Your task to perform on an android device: turn notification dots off Image 0: 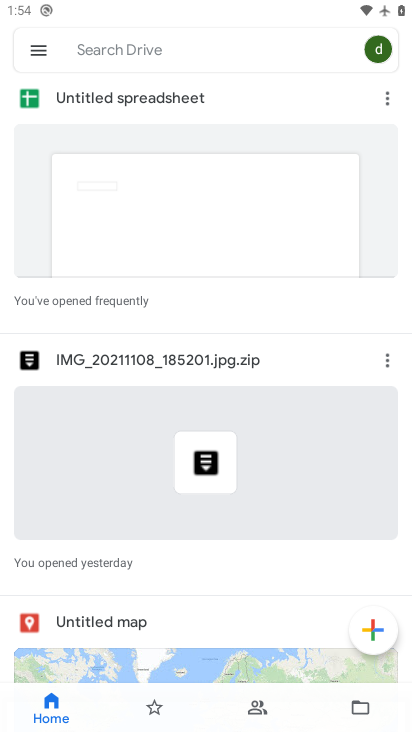
Step 0: press home button
Your task to perform on an android device: turn notification dots off Image 1: 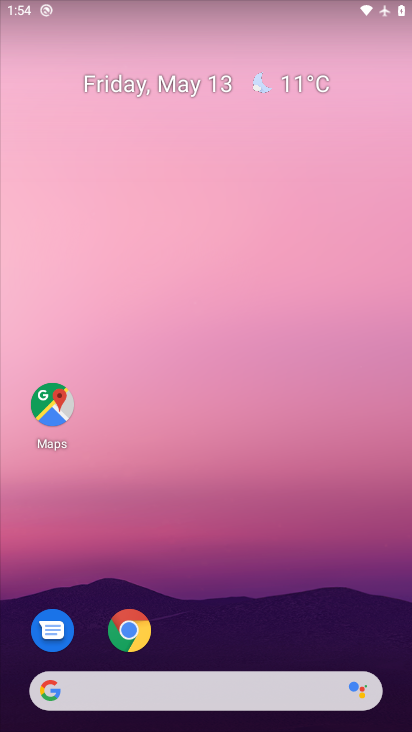
Step 1: drag from (226, 610) to (215, 134)
Your task to perform on an android device: turn notification dots off Image 2: 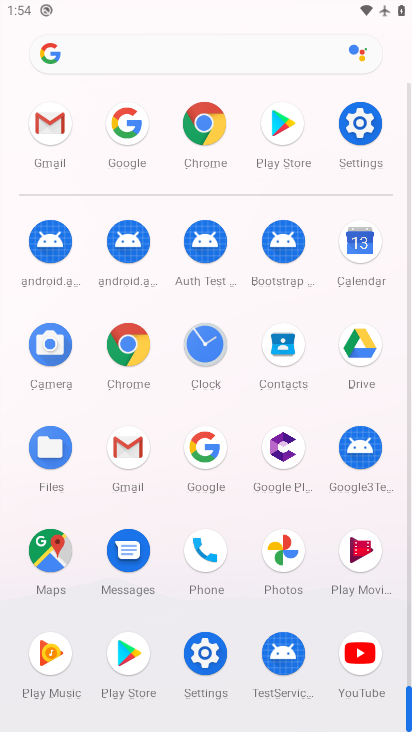
Step 2: click (352, 146)
Your task to perform on an android device: turn notification dots off Image 3: 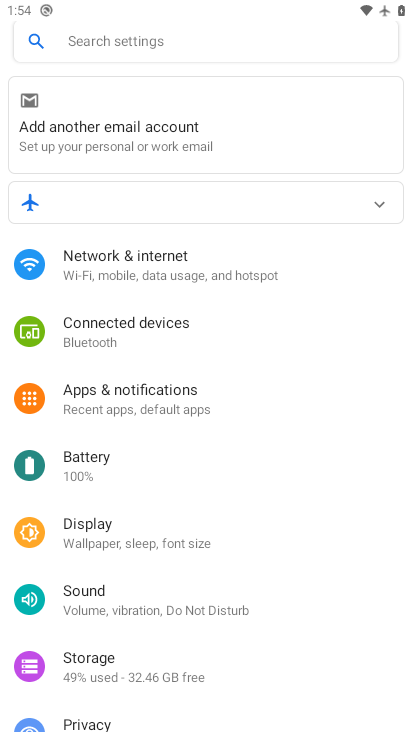
Step 3: click (143, 415)
Your task to perform on an android device: turn notification dots off Image 4: 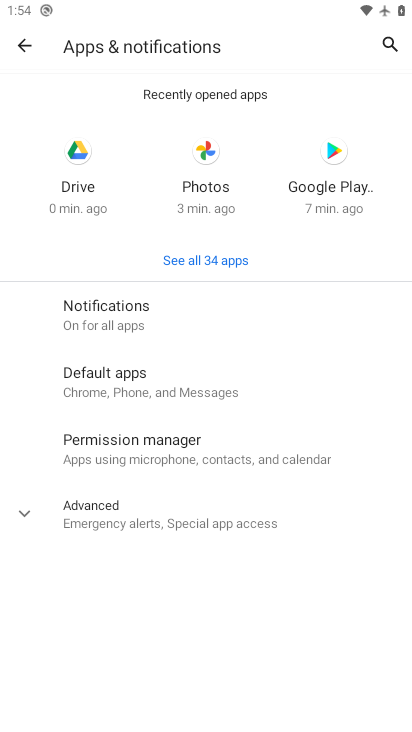
Step 4: click (157, 506)
Your task to perform on an android device: turn notification dots off Image 5: 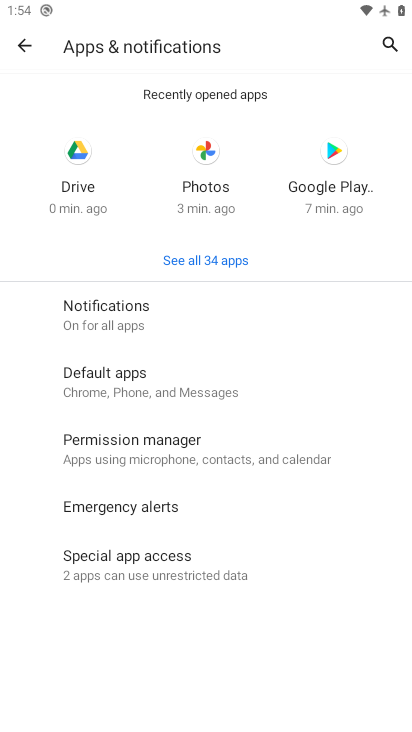
Step 5: drag from (163, 522) to (190, 312)
Your task to perform on an android device: turn notification dots off Image 6: 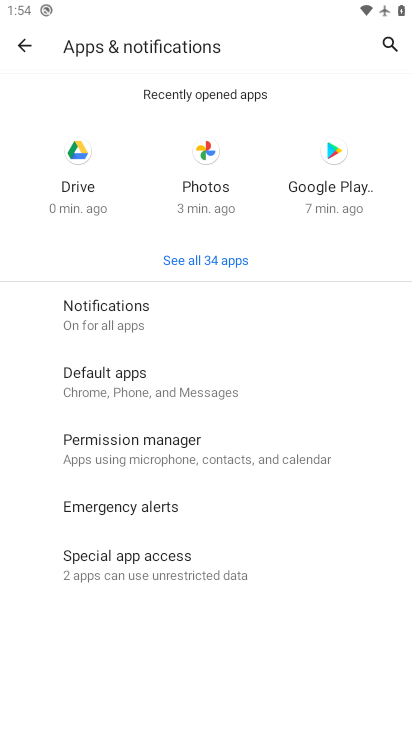
Step 6: click (148, 329)
Your task to perform on an android device: turn notification dots off Image 7: 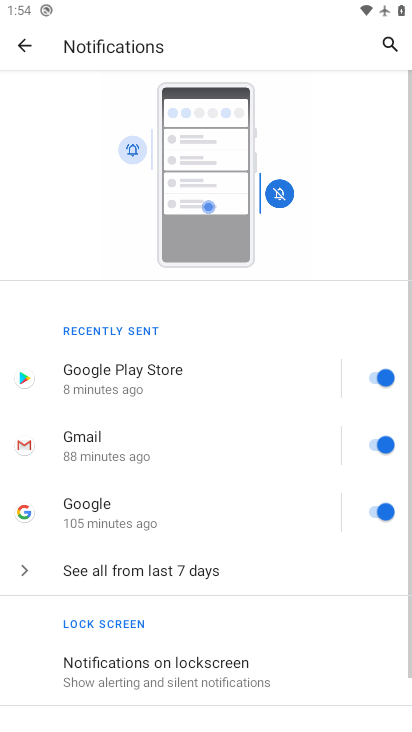
Step 7: drag from (143, 607) to (202, 250)
Your task to perform on an android device: turn notification dots off Image 8: 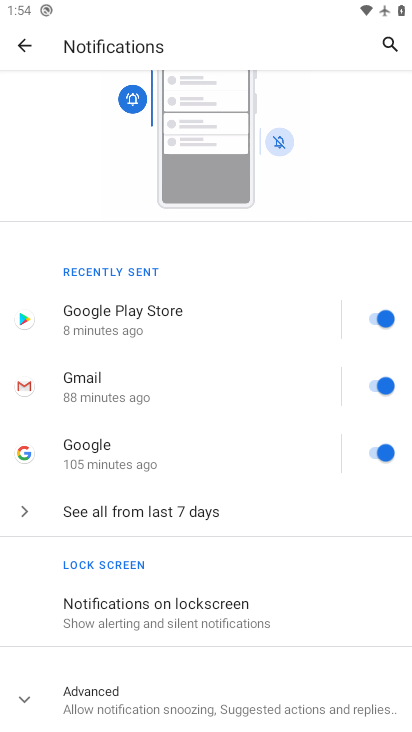
Step 8: drag from (183, 542) to (176, 263)
Your task to perform on an android device: turn notification dots off Image 9: 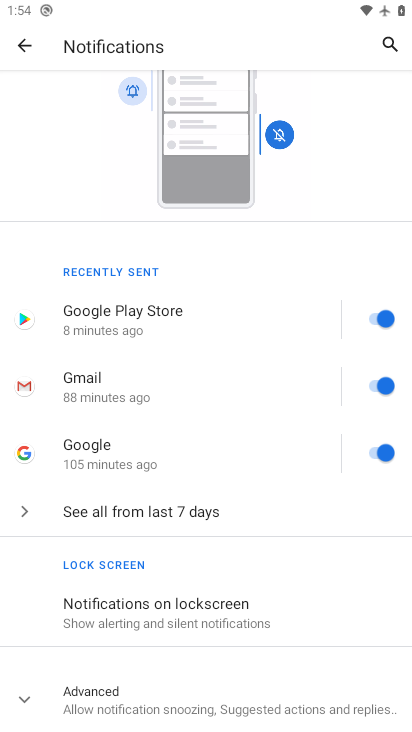
Step 9: drag from (227, 676) to (231, 444)
Your task to perform on an android device: turn notification dots off Image 10: 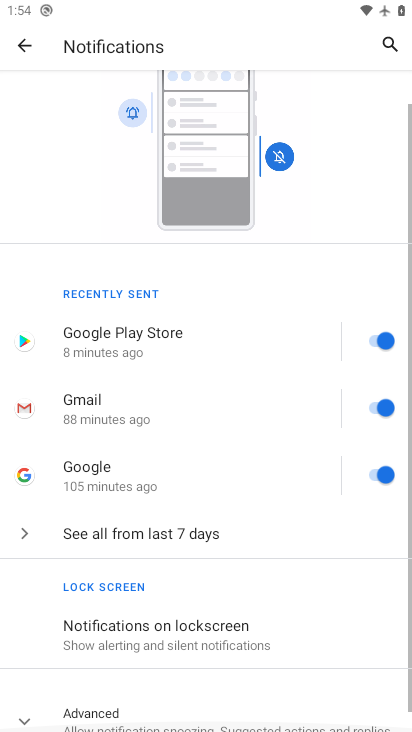
Step 10: click (204, 697)
Your task to perform on an android device: turn notification dots off Image 11: 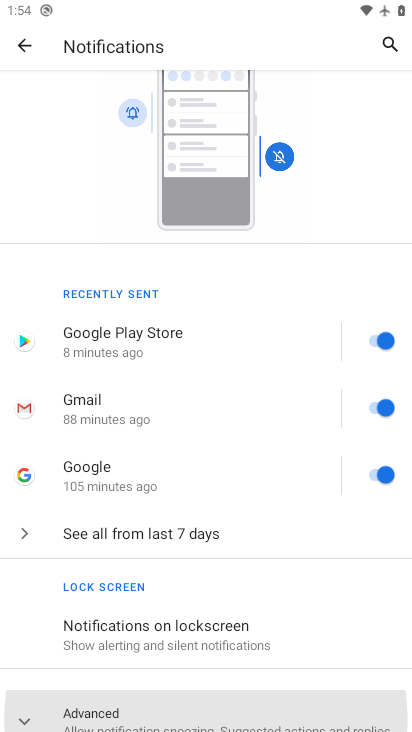
Step 11: drag from (200, 682) to (230, 269)
Your task to perform on an android device: turn notification dots off Image 12: 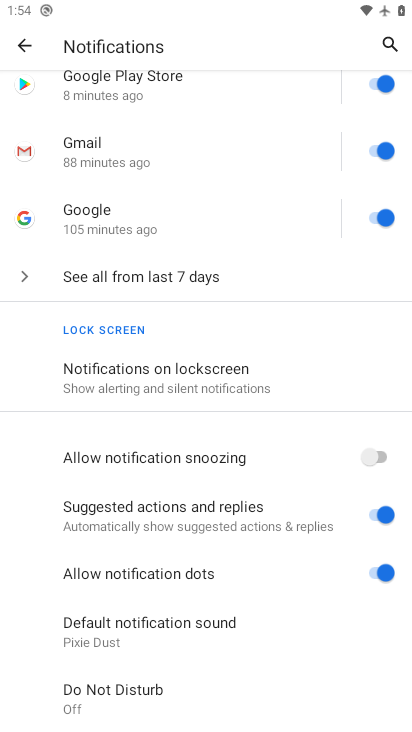
Step 12: click (385, 575)
Your task to perform on an android device: turn notification dots off Image 13: 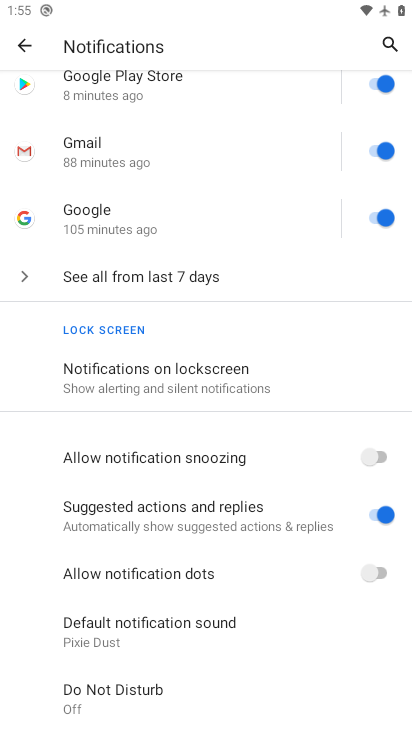
Step 13: task complete